Your task to perform on an android device: allow cookies in the chrome app Image 0: 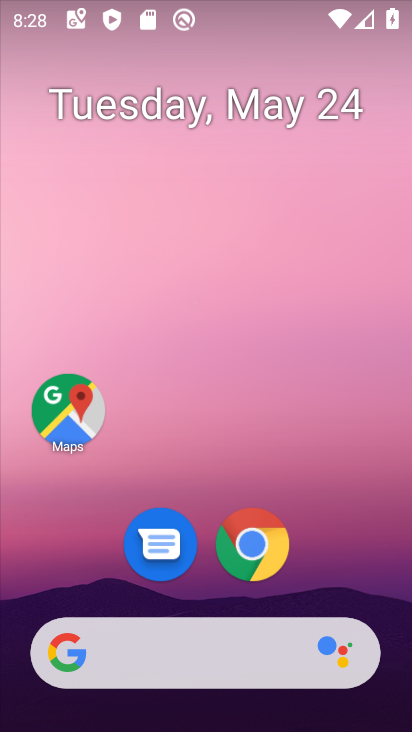
Step 0: click (283, 541)
Your task to perform on an android device: allow cookies in the chrome app Image 1: 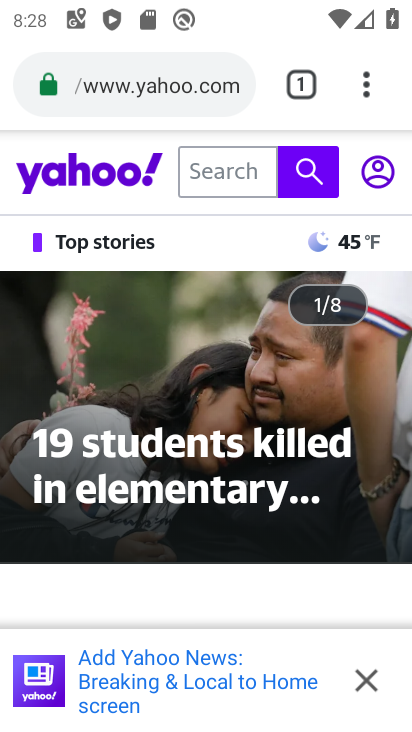
Step 1: click (365, 93)
Your task to perform on an android device: allow cookies in the chrome app Image 2: 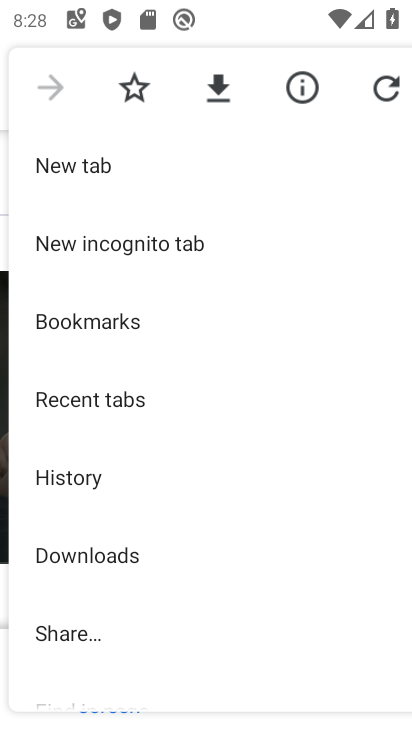
Step 2: drag from (98, 651) to (123, 69)
Your task to perform on an android device: allow cookies in the chrome app Image 3: 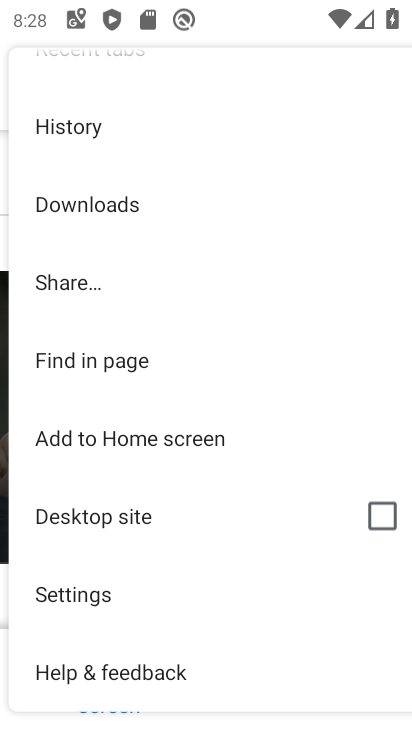
Step 3: click (122, 601)
Your task to perform on an android device: allow cookies in the chrome app Image 4: 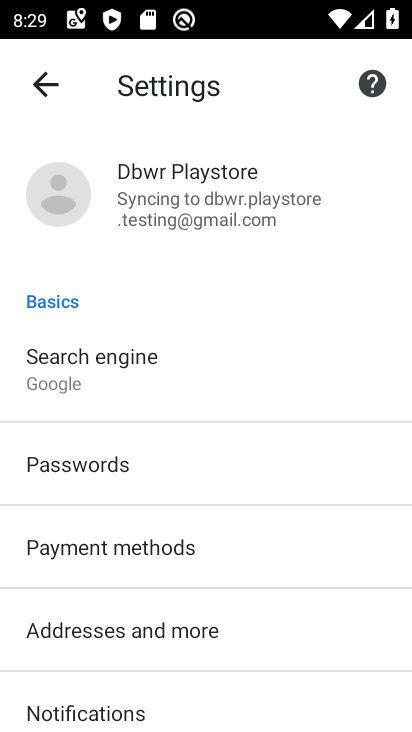
Step 4: drag from (138, 687) to (158, 342)
Your task to perform on an android device: allow cookies in the chrome app Image 5: 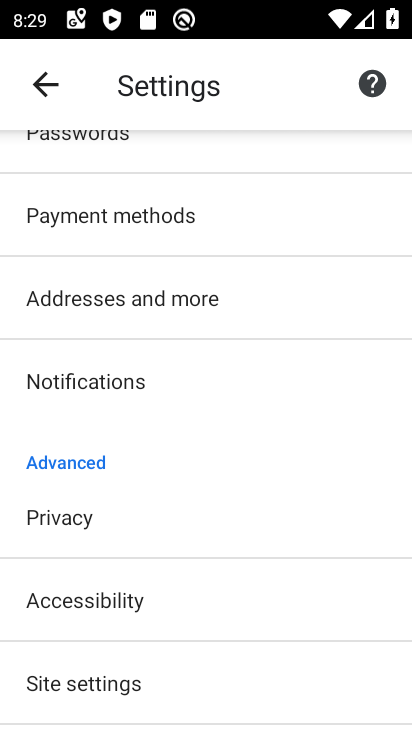
Step 5: click (122, 691)
Your task to perform on an android device: allow cookies in the chrome app Image 6: 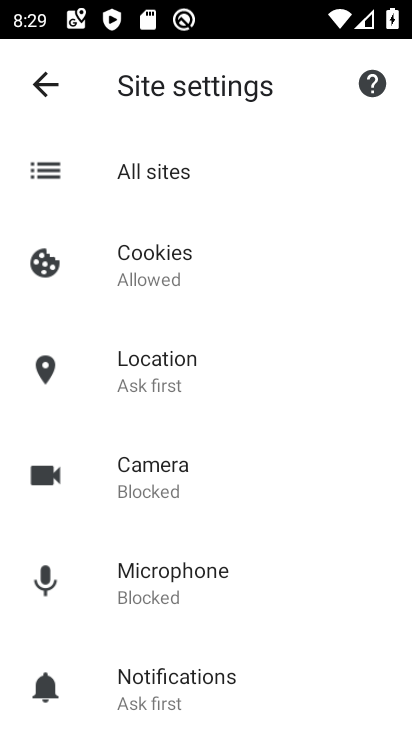
Step 6: click (246, 284)
Your task to perform on an android device: allow cookies in the chrome app Image 7: 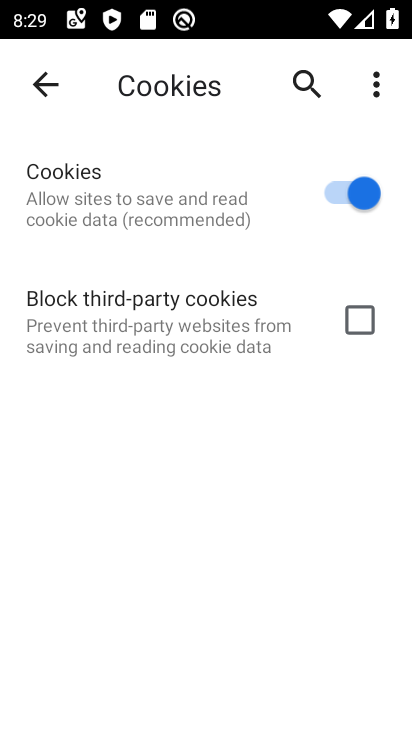
Step 7: task complete